Your task to perform on an android device: Show me popular games on the Play Store Image 0: 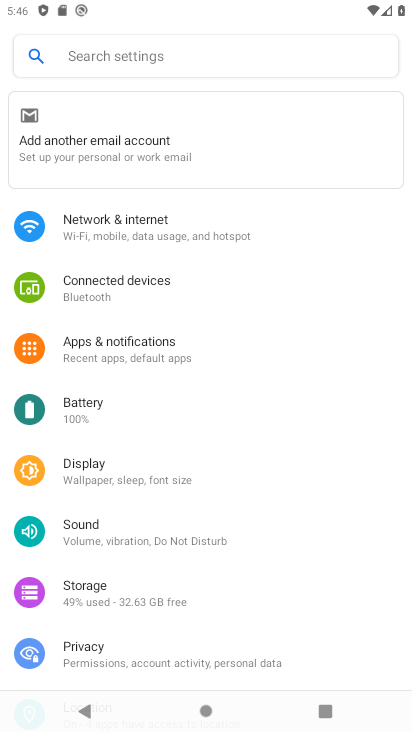
Step 0: drag from (182, 627) to (199, 354)
Your task to perform on an android device: Show me popular games on the Play Store Image 1: 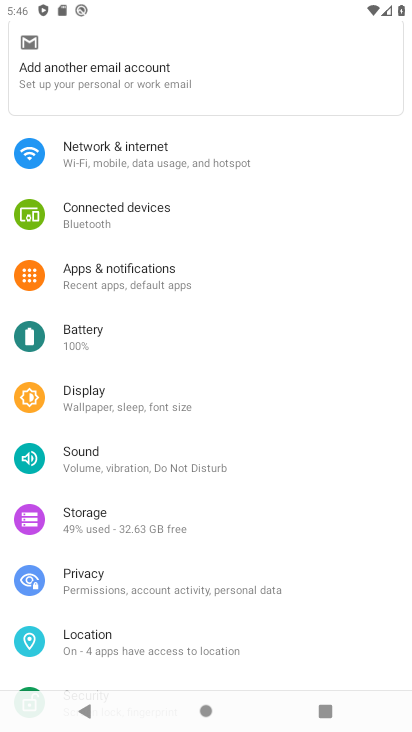
Step 1: drag from (151, 644) to (233, 347)
Your task to perform on an android device: Show me popular games on the Play Store Image 2: 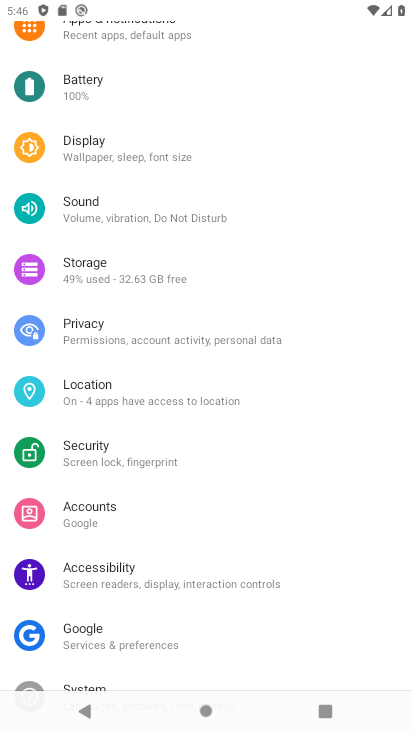
Step 2: press back button
Your task to perform on an android device: Show me popular games on the Play Store Image 3: 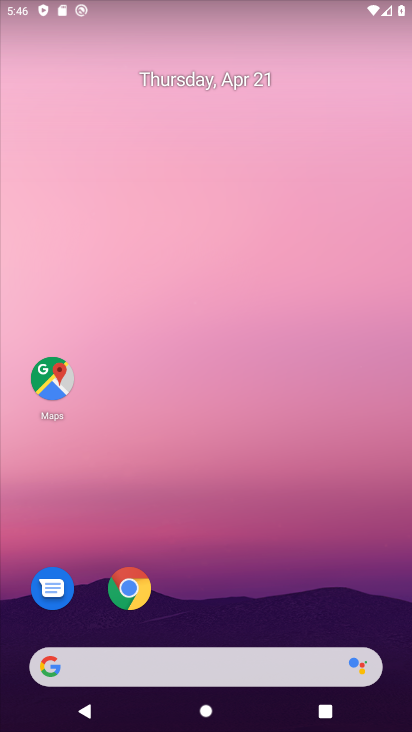
Step 3: drag from (201, 590) to (260, 293)
Your task to perform on an android device: Show me popular games on the Play Store Image 4: 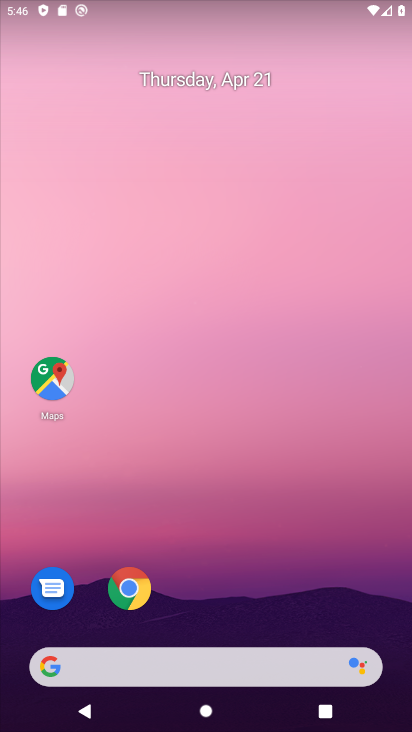
Step 4: drag from (210, 568) to (226, 261)
Your task to perform on an android device: Show me popular games on the Play Store Image 5: 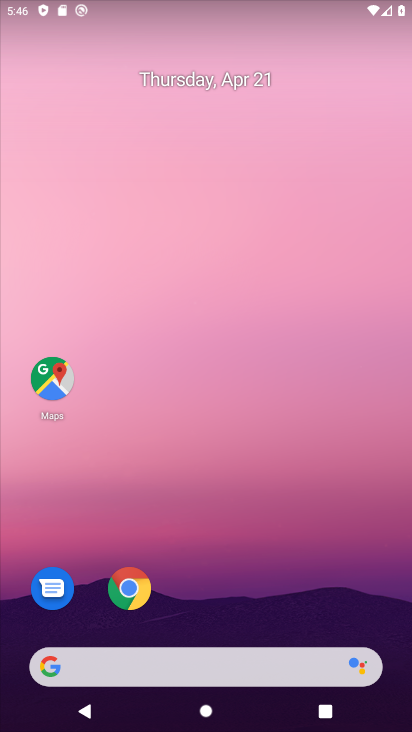
Step 5: drag from (236, 611) to (185, 267)
Your task to perform on an android device: Show me popular games on the Play Store Image 6: 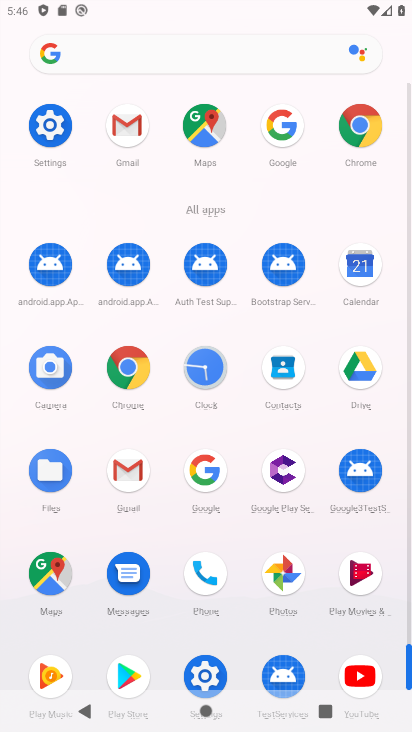
Step 6: click (121, 675)
Your task to perform on an android device: Show me popular games on the Play Store Image 7: 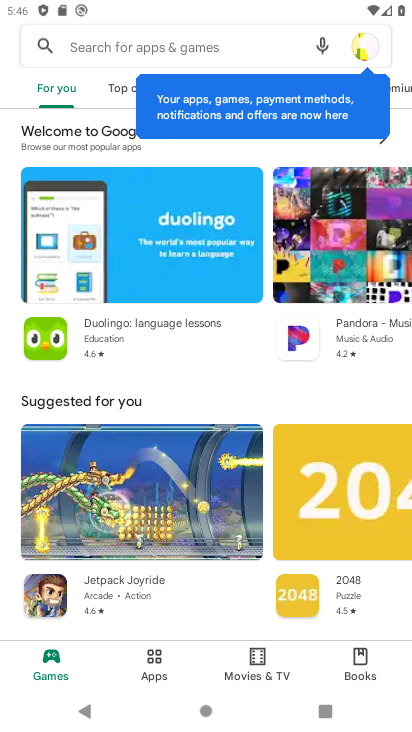
Step 7: click (262, 28)
Your task to perform on an android device: Show me popular games on the Play Store Image 8: 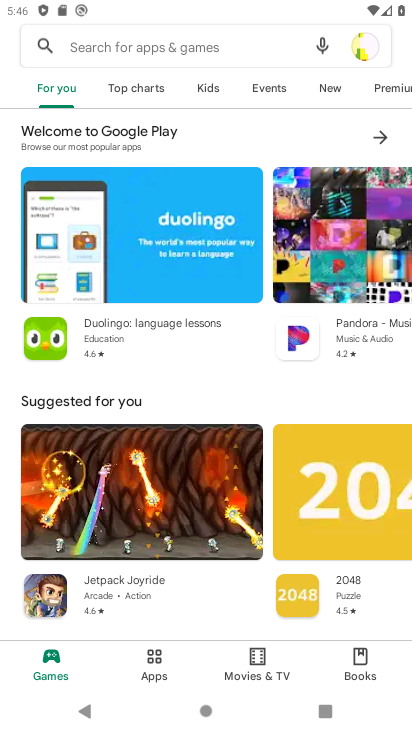
Step 8: click (226, 45)
Your task to perform on an android device: Show me popular games on the Play Store Image 9: 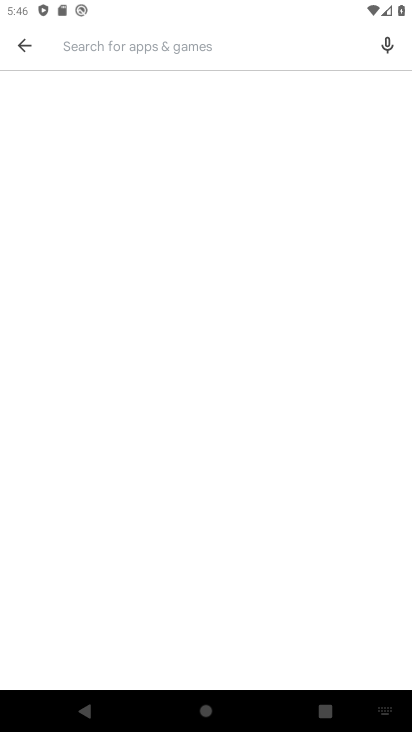
Step 9: type "games"
Your task to perform on an android device: Show me popular games on the Play Store Image 10: 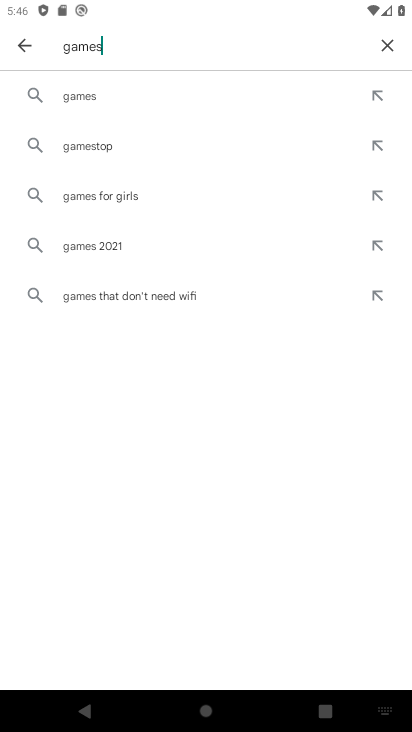
Step 10: click (75, 97)
Your task to perform on an android device: Show me popular games on the Play Store Image 11: 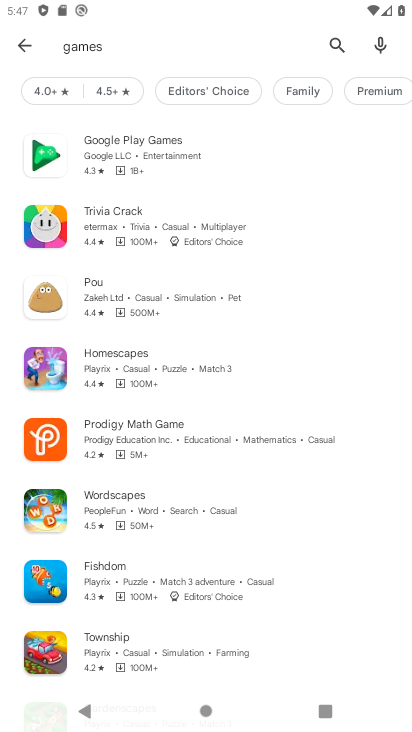
Step 11: task complete